Your task to perform on an android device: toggle pop-ups in chrome Image 0: 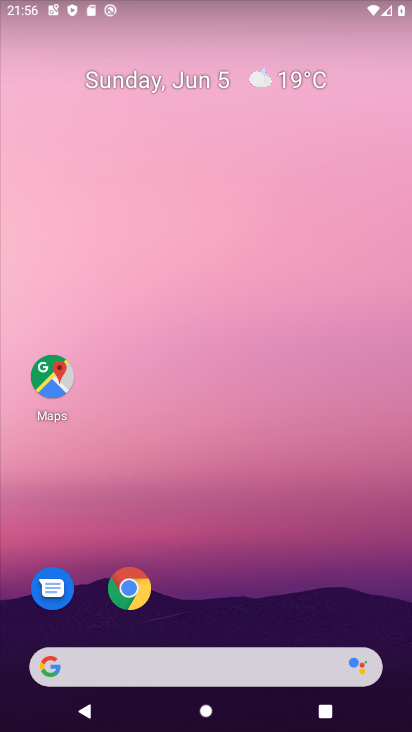
Step 0: drag from (356, 613) to (358, 184)
Your task to perform on an android device: toggle pop-ups in chrome Image 1: 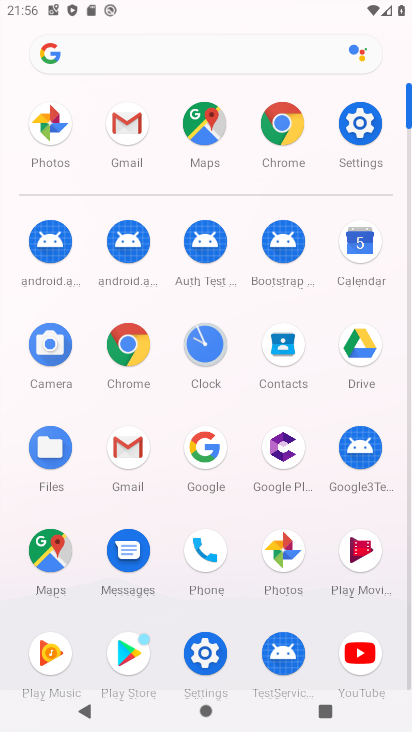
Step 1: click (291, 128)
Your task to perform on an android device: toggle pop-ups in chrome Image 2: 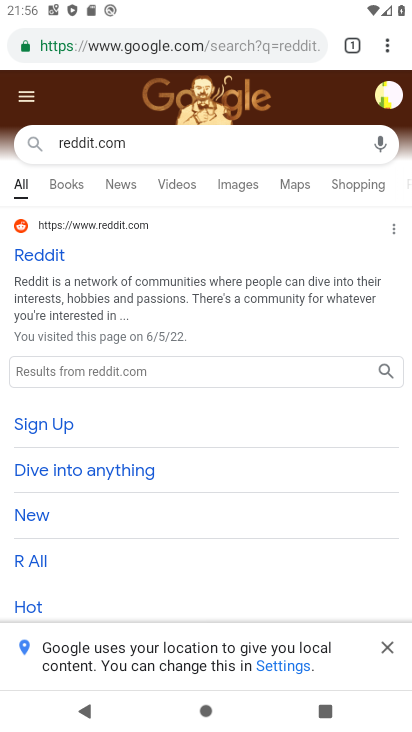
Step 2: click (388, 53)
Your task to perform on an android device: toggle pop-ups in chrome Image 3: 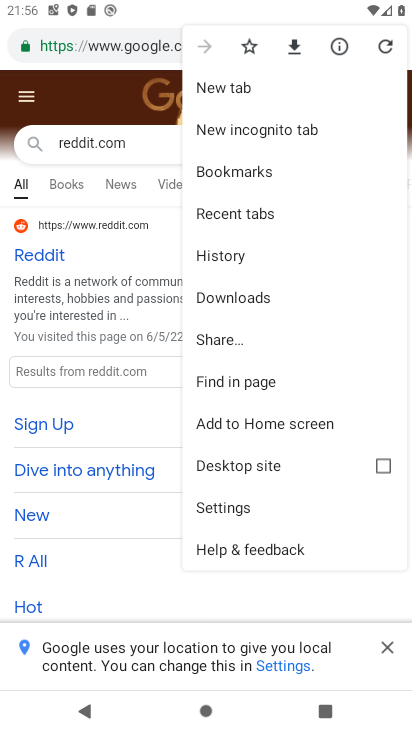
Step 3: click (259, 505)
Your task to perform on an android device: toggle pop-ups in chrome Image 4: 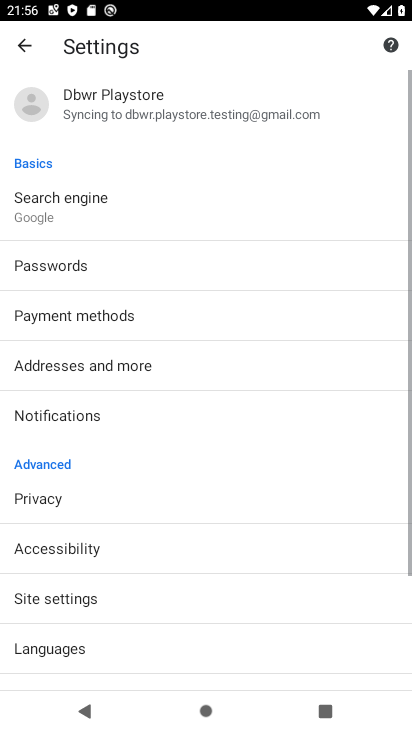
Step 4: drag from (271, 525) to (280, 466)
Your task to perform on an android device: toggle pop-ups in chrome Image 5: 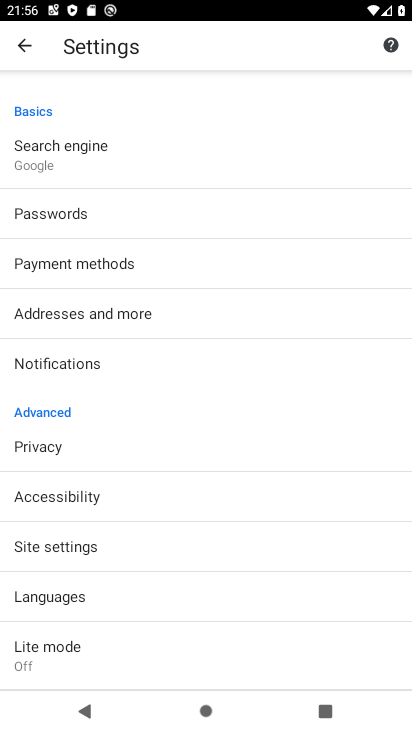
Step 5: drag from (282, 535) to (285, 479)
Your task to perform on an android device: toggle pop-ups in chrome Image 6: 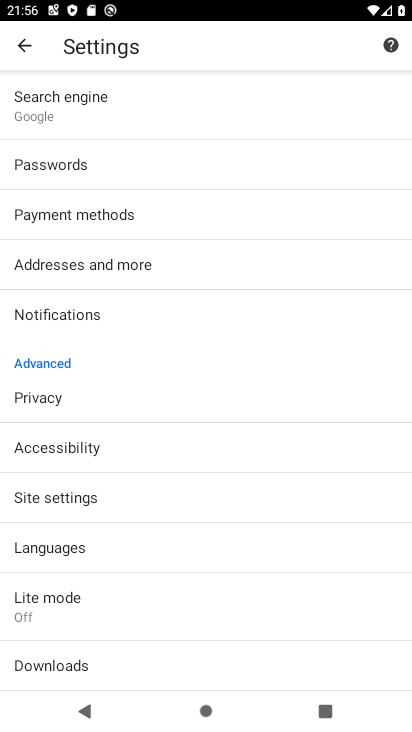
Step 6: drag from (291, 538) to (291, 483)
Your task to perform on an android device: toggle pop-ups in chrome Image 7: 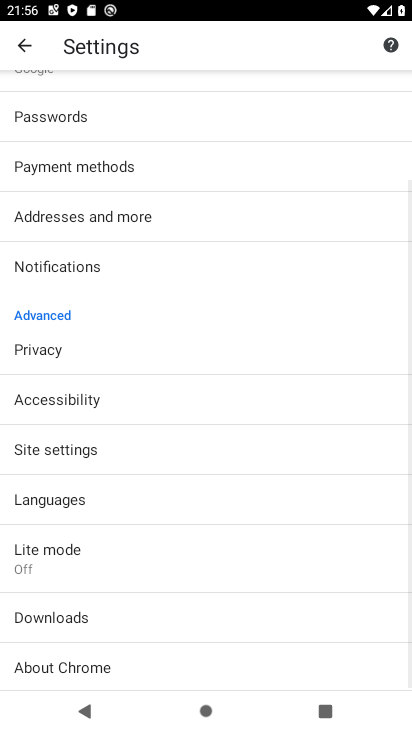
Step 7: drag from (291, 554) to (293, 480)
Your task to perform on an android device: toggle pop-ups in chrome Image 8: 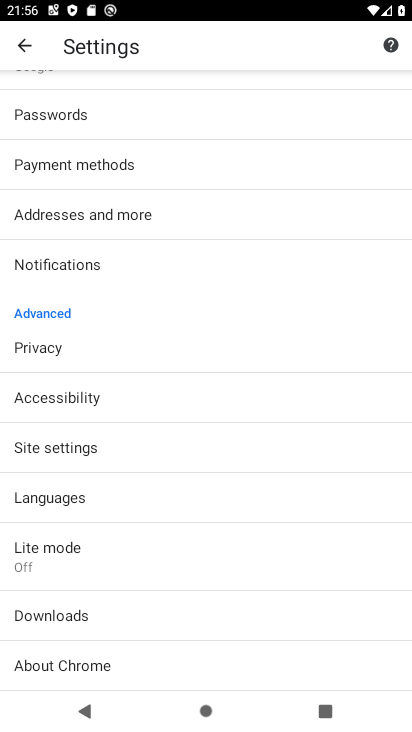
Step 8: click (242, 453)
Your task to perform on an android device: toggle pop-ups in chrome Image 9: 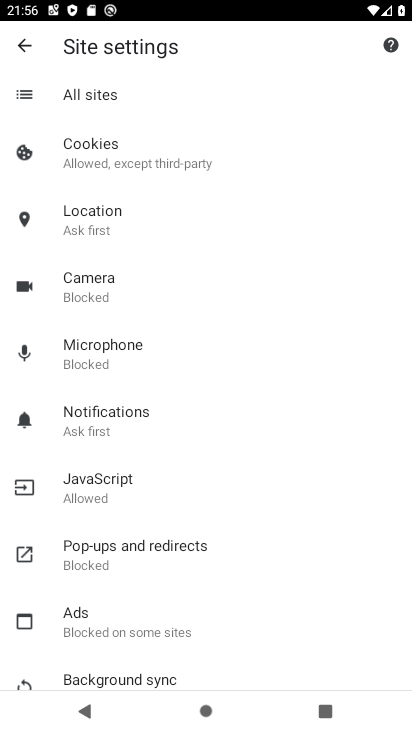
Step 9: drag from (263, 502) to (271, 421)
Your task to perform on an android device: toggle pop-ups in chrome Image 10: 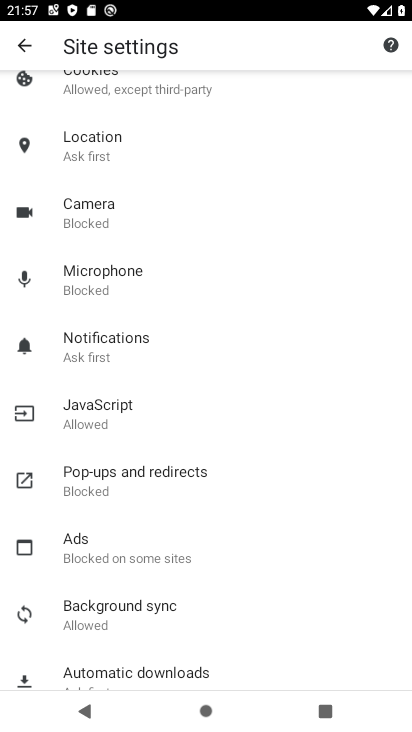
Step 10: drag from (296, 506) to (296, 385)
Your task to perform on an android device: toggle pop-ups in chrome Image 11: 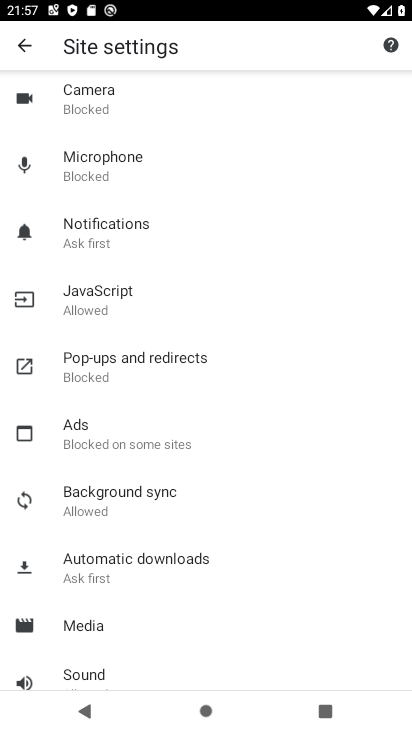
Step 11: drag from (303, 500) to (301, 367)
Your task to perform on an android device: toggle pop-ups in chrome Image 12: 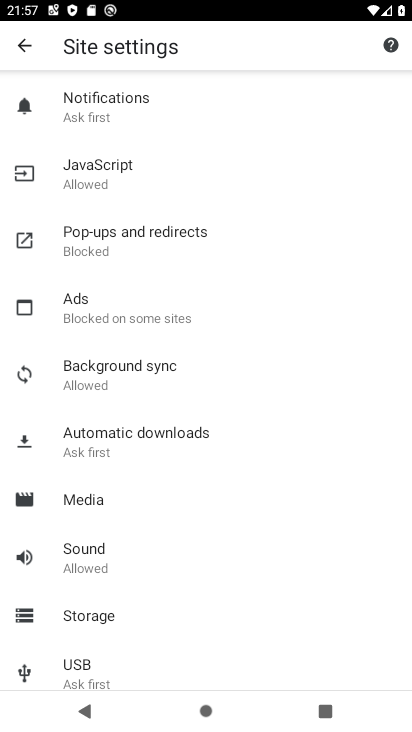
Step 12: drag from (318, 526) to (317, 383)
Your task to perform on an android device: toggle pop-ups in chrome Image 13: 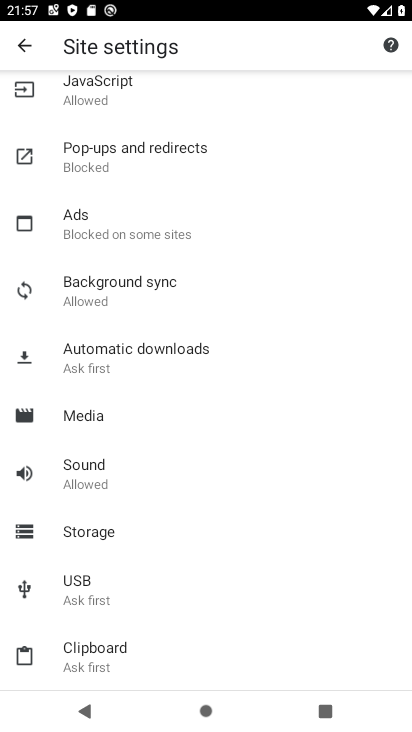
Step 13: drag from (321, 288) to (325, 391)
Your task to perform on an android device: toggle pop-ups in chrome Image 14: 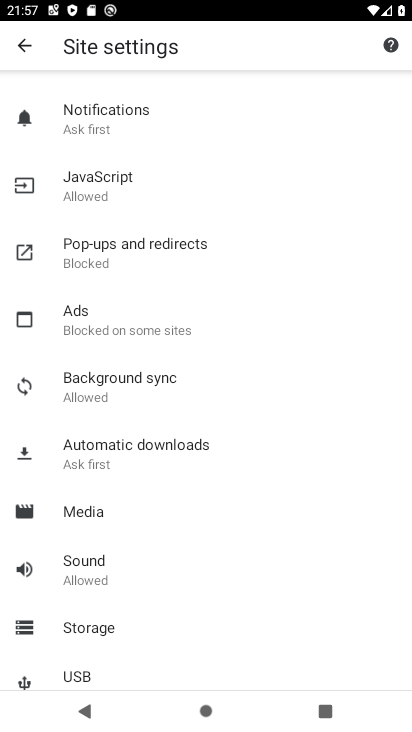
Step 14: click (222, 271)
Your task to perform on an android device: toggle pop-ups in chrome Image 15: 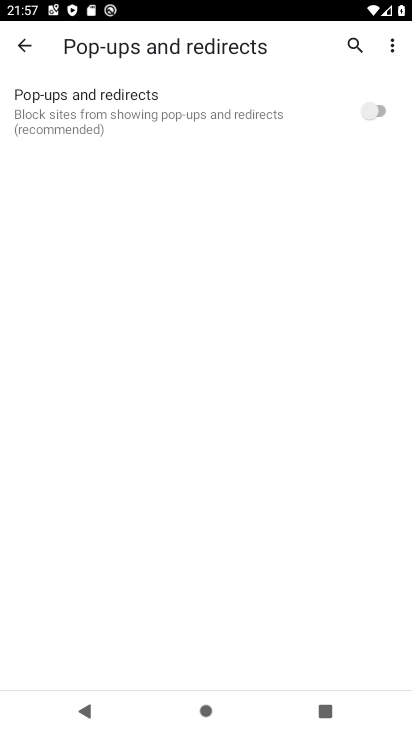
Step 15: click (365, 113)
Your task to perform on an android device: toggle pop-ups in chrome Image 16: 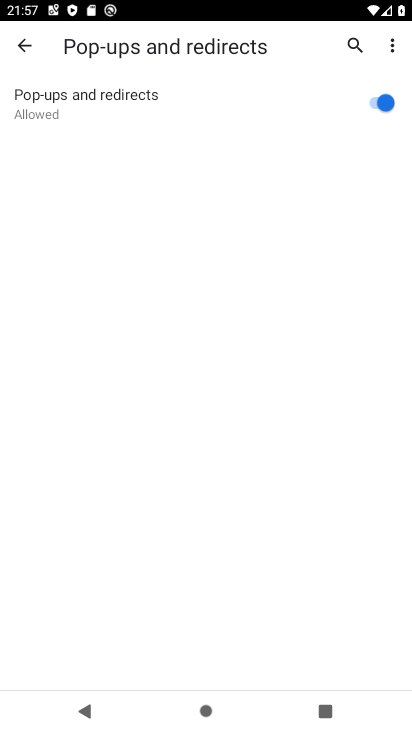
Step 16: task complete